Your task to perform on an android device: Go to Reddit.com Image 0: 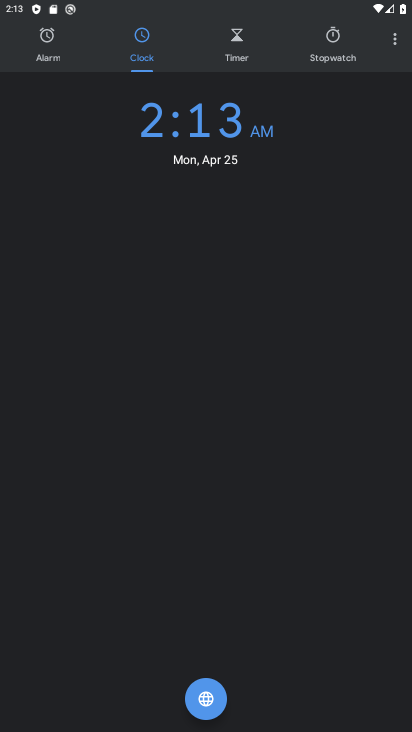
Step 0: press home button
Your task to perform on an android device: Go to Reddit.com Image 1: 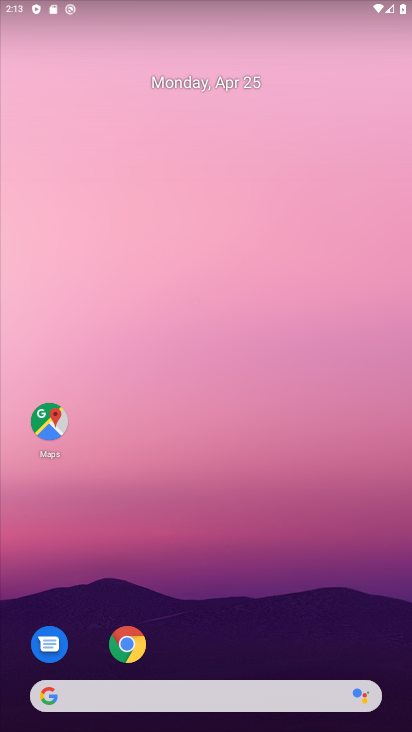
Step 1: drag from (216, 591) to (114, 308)
Your task to perform on an android device: Go to Reddit.com Image 2: 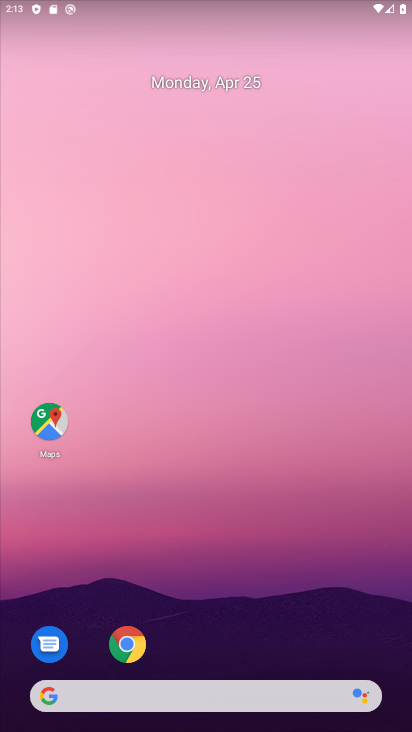
Step 2: click (122, 653)
Your task to perform on an android device: Go to Reddit.com Image 3: 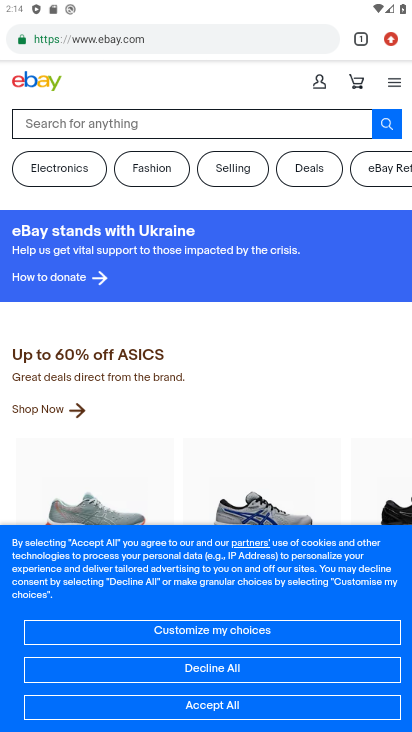
Step 3: click (179, 27)
Your task to perform on an android device: Go to Reddit.com Image 4: 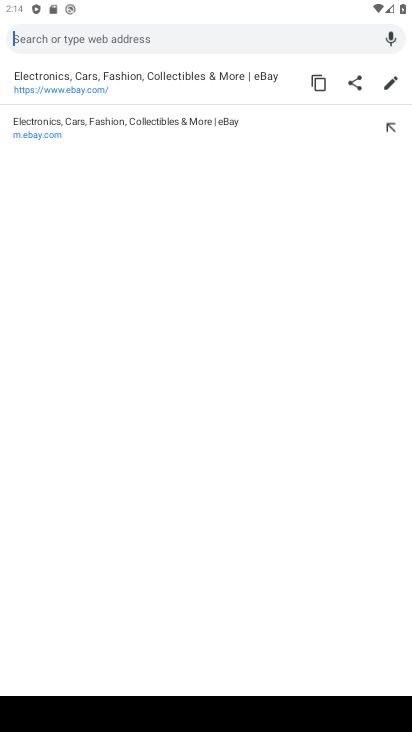
Step 4: type "reddit.com"
Your task to perform on an android device: Go to Reddit.com Image 5: 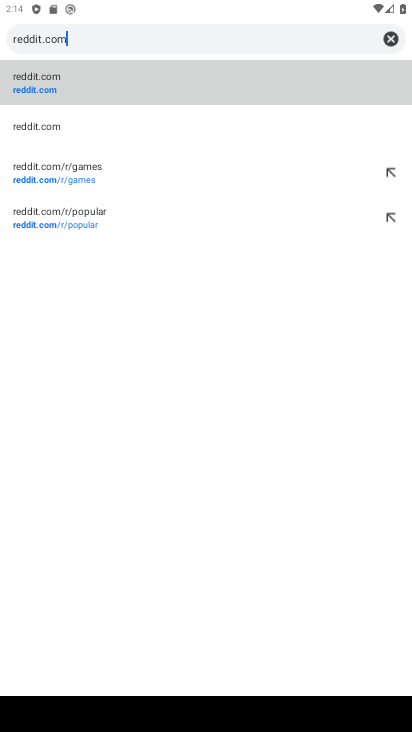
Step 5: click (32, 88)
Your task to perform on an android device: Go to Reddit.com Image 6: 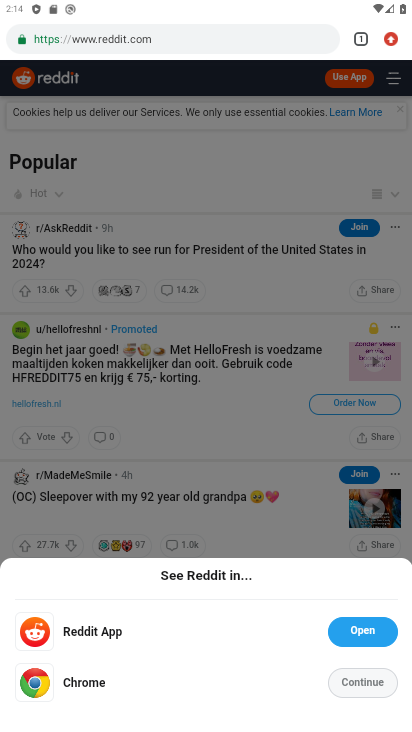
Step 6: click (358, 687)
Your task to perform on an android device: Go to Reddit.com Image 7: 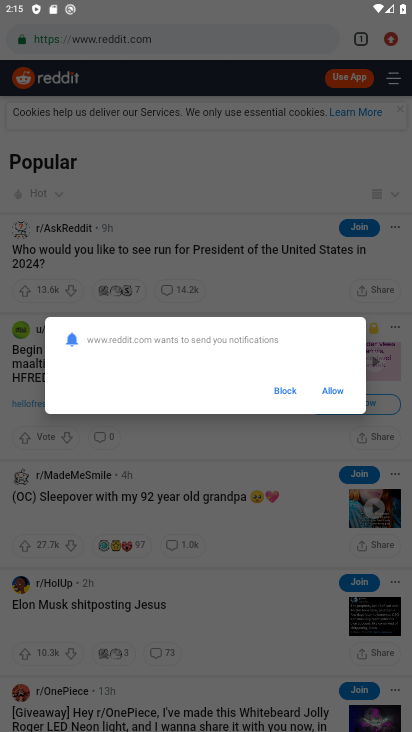
Step 7: task complete